Your task to perform on an android device: Open Amazon Image 0: 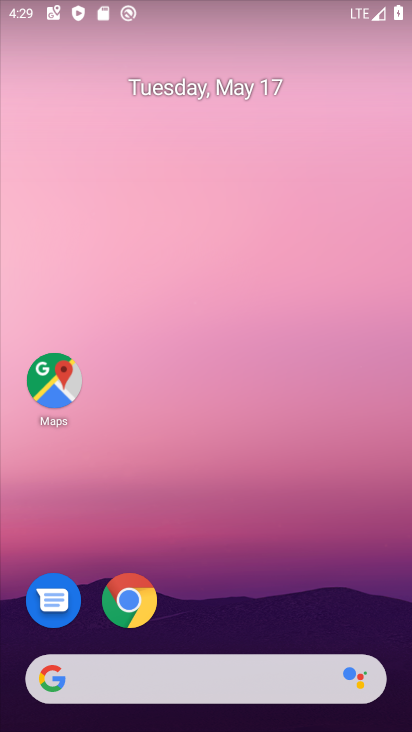
Step 0: click (126, 595)
Your task to perform on an android device: Open Amazon Image 1: 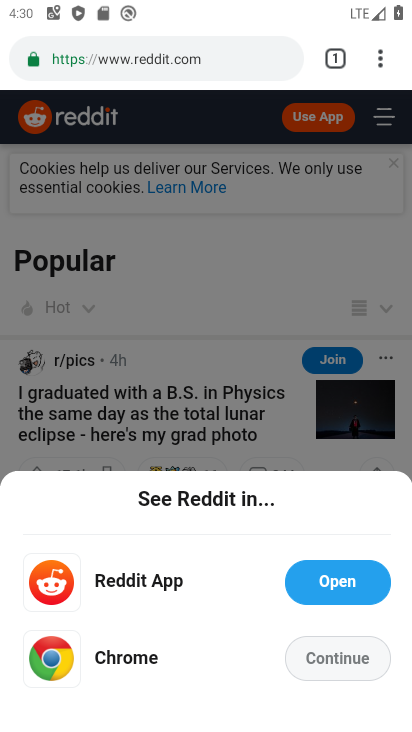
Step 1: click (205, 50)
Your task to perform on an android device: Open Amazon Image 2: 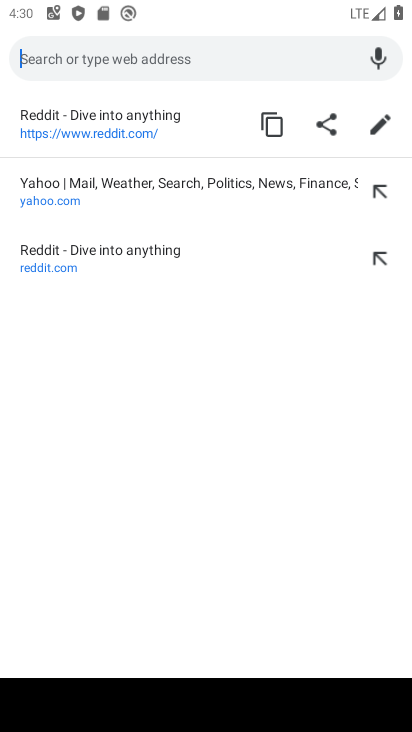
Step 2: type "amazon"
Your task to perform on an android device: Open Amazon Image 3: 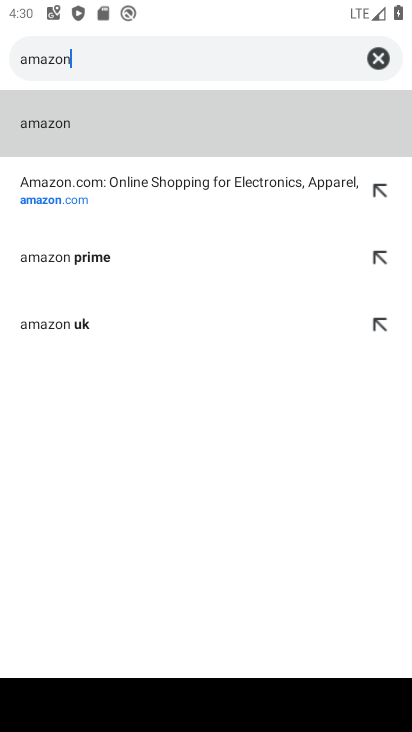
Step 3: click (39, 202)
Your task to perform on an android device: Open Amazon Image 4: 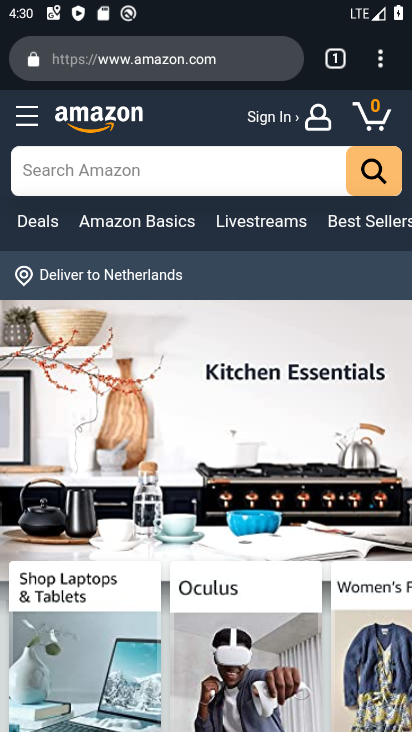
Step 4: task complete